Your task to perform on an android device: turn off notifications in google photos Image 0: 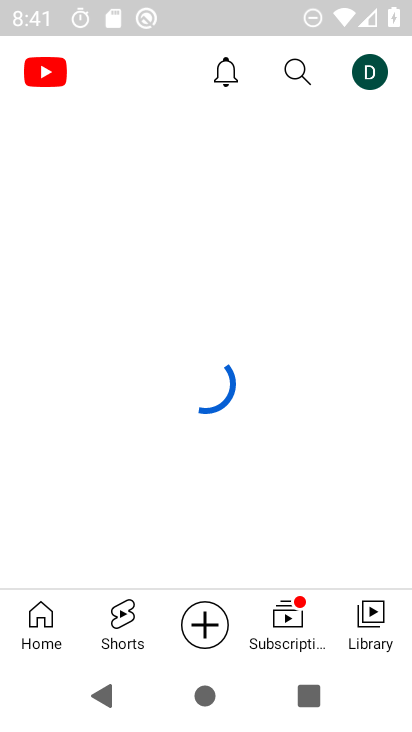
Step 0: press home button
Your task to perform on an android device: turn off notifications in google photos Image 1: 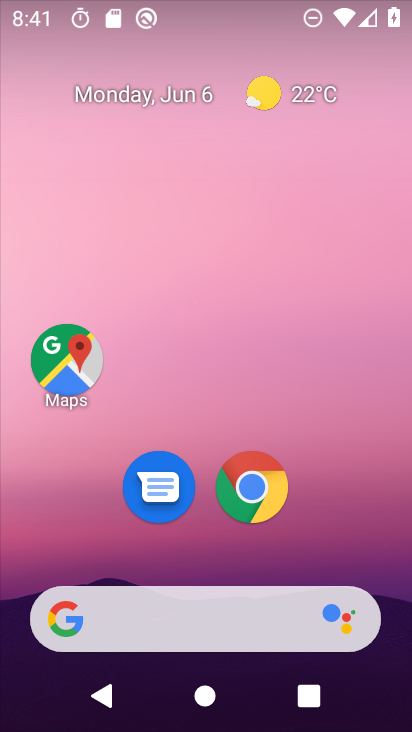
Step 1: drag from (384, 556) to (365, 446)
Your task to perform on an android device: turn off notifications in google photos Image 2: 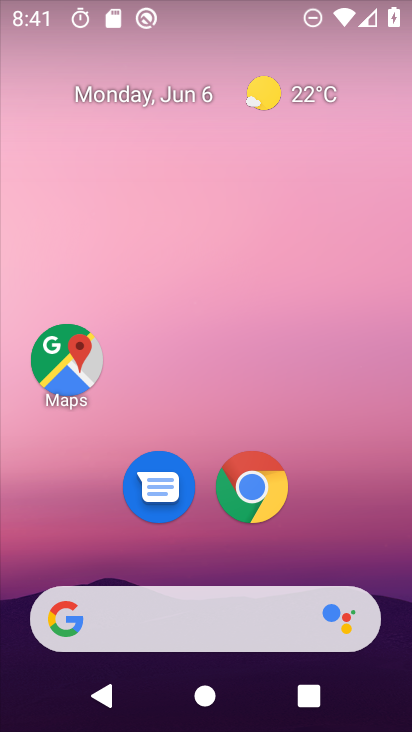
Step 2: drag from (330, 269) to (272, 68)
Your task to perform on an android device: turn off notifications in google photos Image 3: 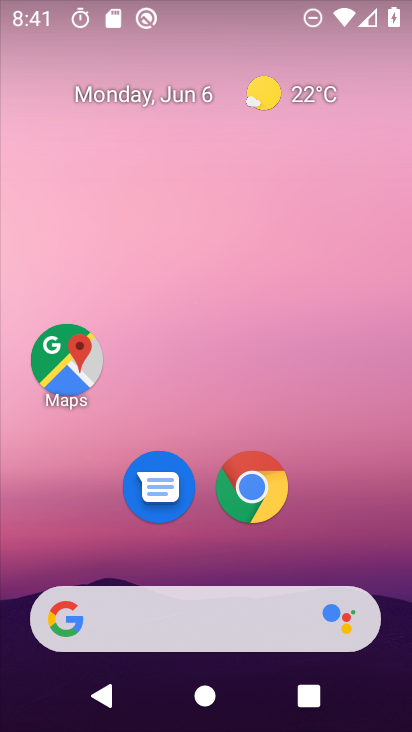
Step 3: drag from (389, 606) to (269, 124)
Your task to perform on an android device: turn off notifications in google photos Image 4: 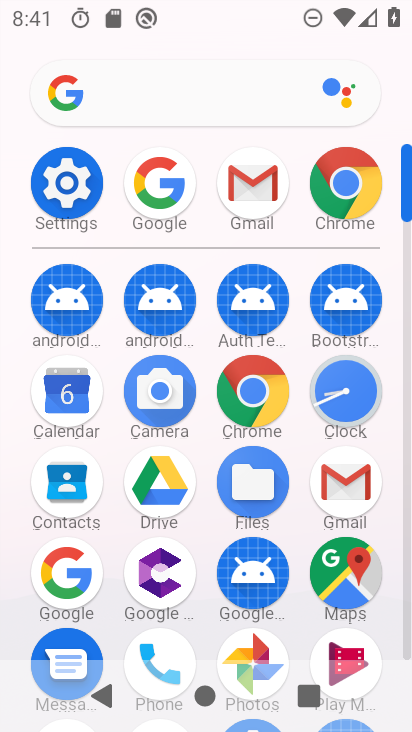
Step 4: click (262, 642)
Your task to perform on an android device: turn off notifications in google photos Image 5: 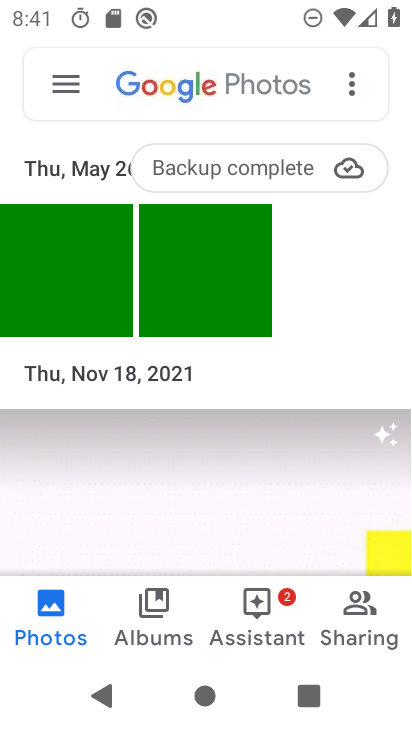
Step 5: click (61, 91)
Your task to perform on an android device: turn off notifications in google photos Image 6: 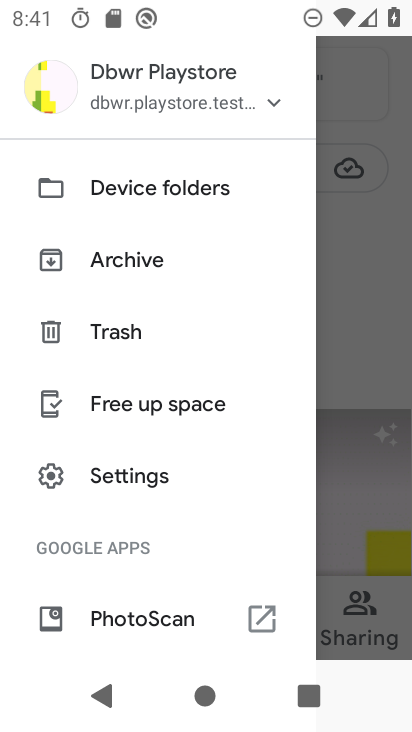
Step 6: click (144, 477)
Your task to perform on an android device: turn off notifications in google photos Image 7: 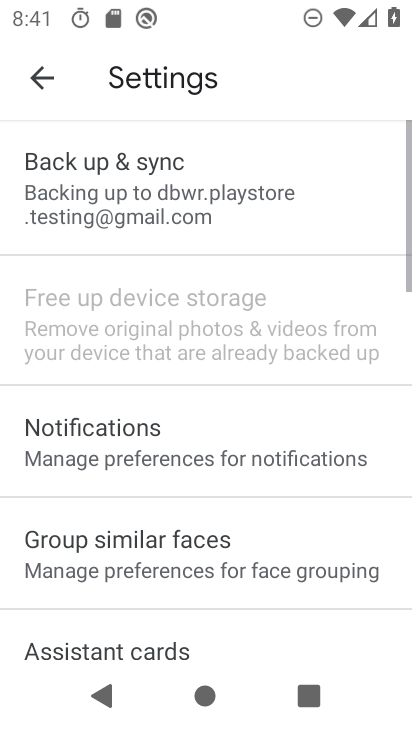
Step 7: click (177, 445)
Your task to perform on an android device: turn off notifications in google photos Image 8: 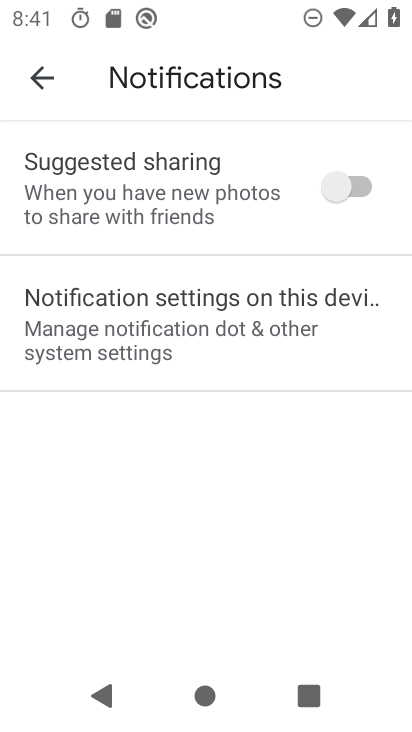
Step 8: task complete